Your task to perform on an android device: Show me productivity apps on the Play Store Image 0: 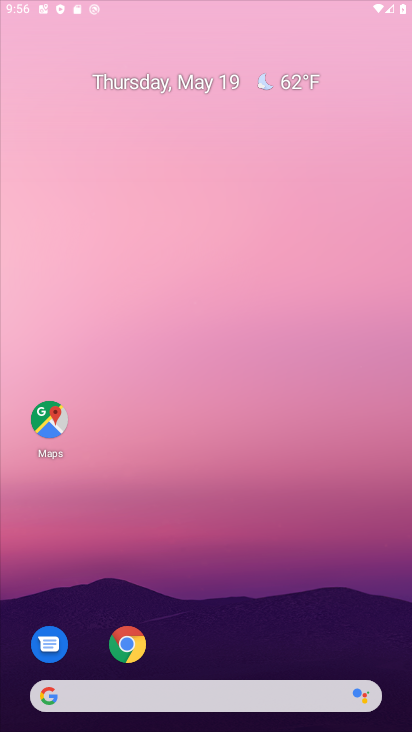
Step 0: click (190, 139)
Your task to perform on an android device: Show me productivity apps on the Play Store Image 1: 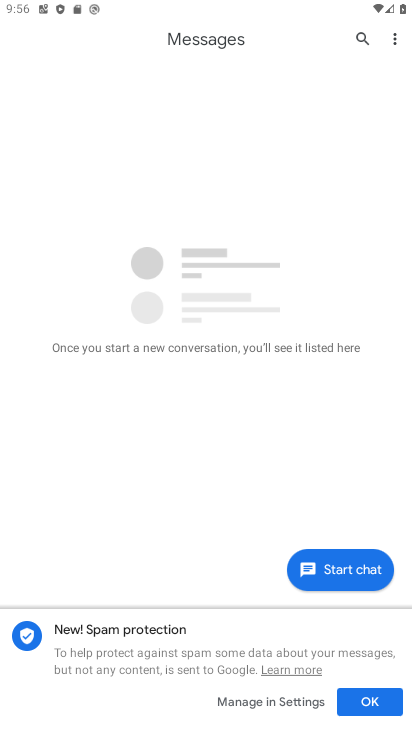
Step 1: press back button
Your task to perform on an android device: Show me productivity apps on the Play Store Image 2: 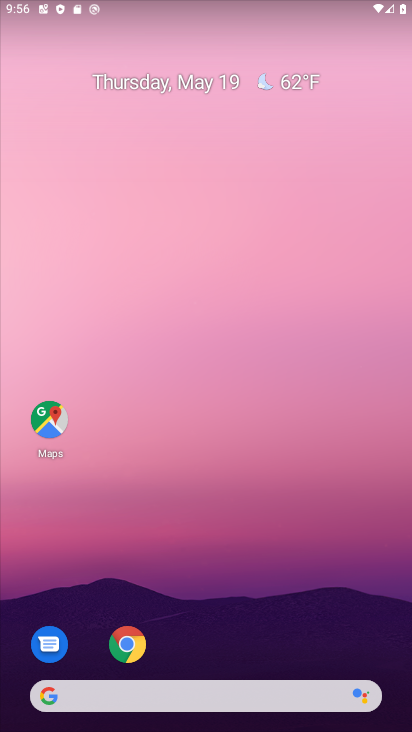
Step 2: drag from (230, 662) to (172, 171)
Your task to perform on an android device: Show me productivity apps on the Play Store Image 3: 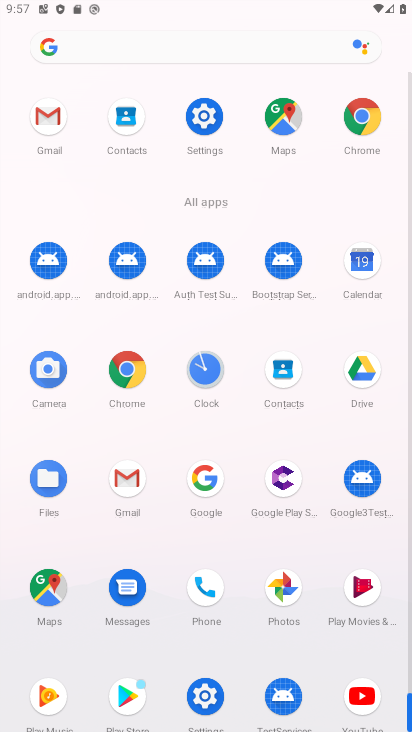
Step 3: click (133, 692)
Your task to perform on an android device: Show me productivity apps on the Play Store Image 4: 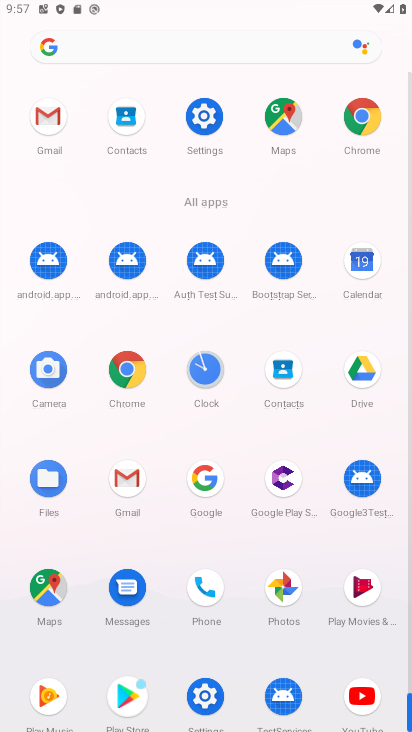
Step 4: click (133, 692)
Your task to perform on an android device: Show me productivity apps on the Play Store Image 5: 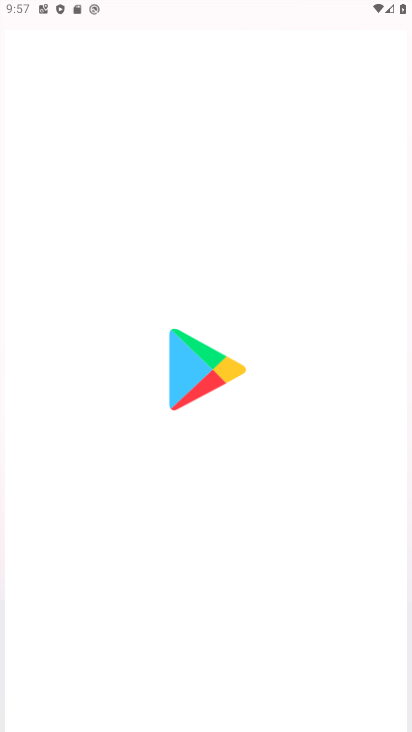
Step 5: click (131, 692)
Your task to perform on an android device: Show me productivity apps on the Play Store Image 6: 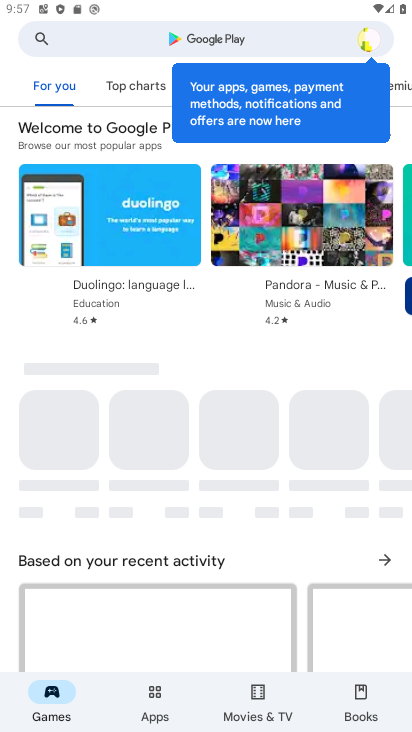
Step 6: click (100, 19)
Your task to perform on an android device: Show me productivity apps on the Play Store Image 7: 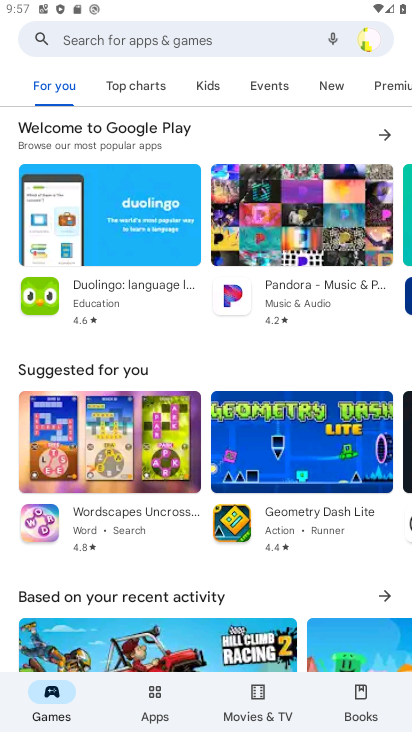
Step 7: click (74, 44)
Your task to perform on an android device: Show me productivity apps on the Play Store Image 8: 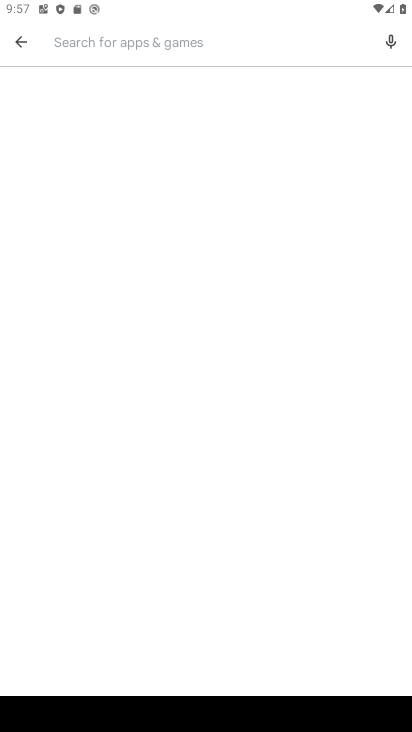
Step 8: type "productivity app"
Your task to perform on an android device: Show me productivity apps on the Play Store Image 9: 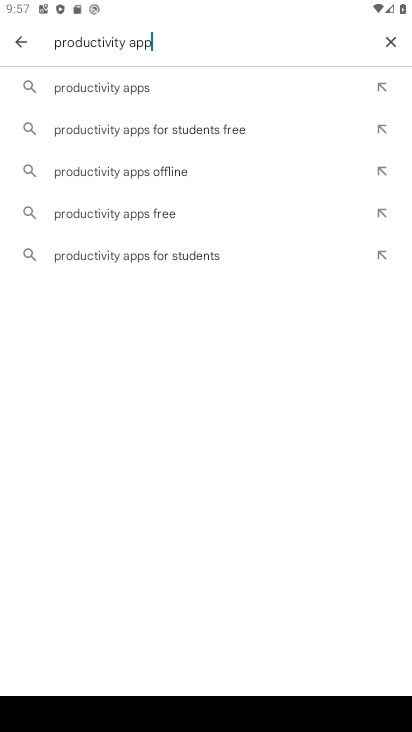
Step 9: click (109, 101)
Your task to perform on an android device: Show me productivity apps on the Play Store Image 10: 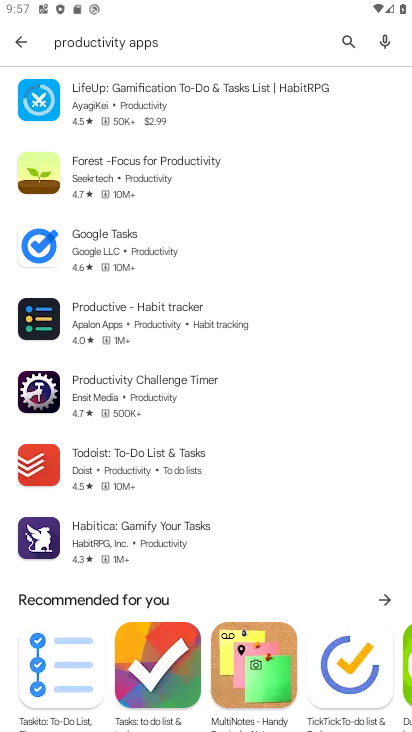
Step 10: task complete